Your task to perform on an android device: turn off wifi Image 0: 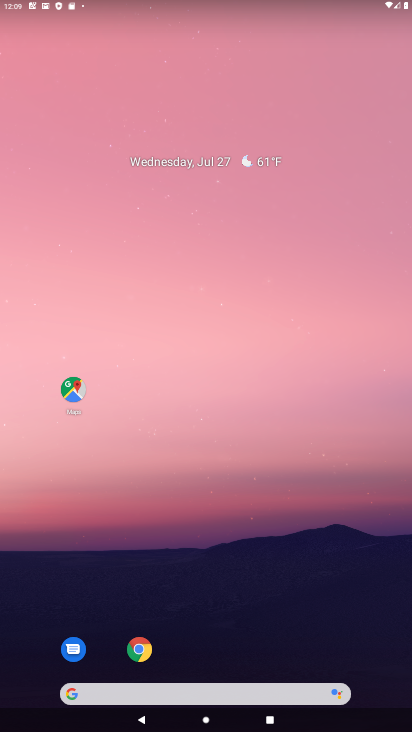
Step 0: drag from (246, 684) to (201, 298)
Your task to perform on an android device: turn off wifi Image 1: 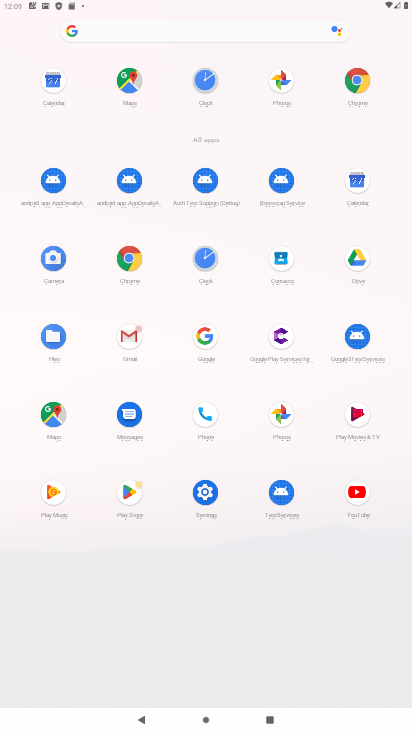
Step 1: click (205, 489)
Your task to perform on an android device: turn off wifi Image 2: 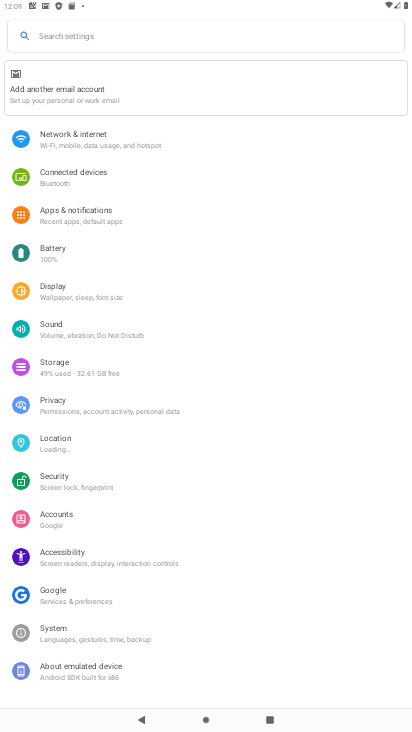
Step 2: click (78, 133)
Your task to perform on an android device: turn off wifi Image 3: 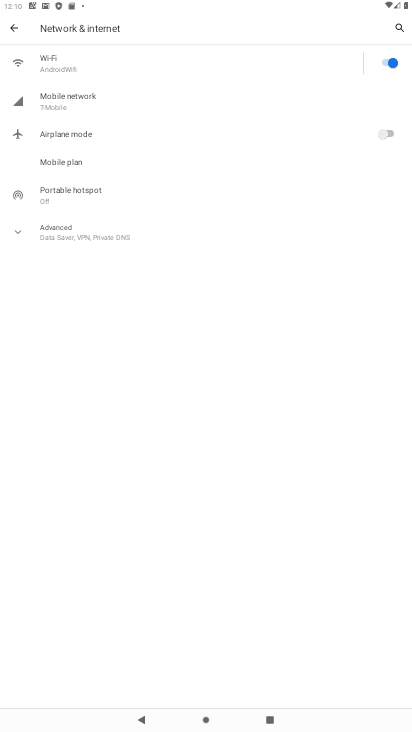
Step 3: click (382, 59)
Your task to perform on an android device: turn off wifi Image 4: 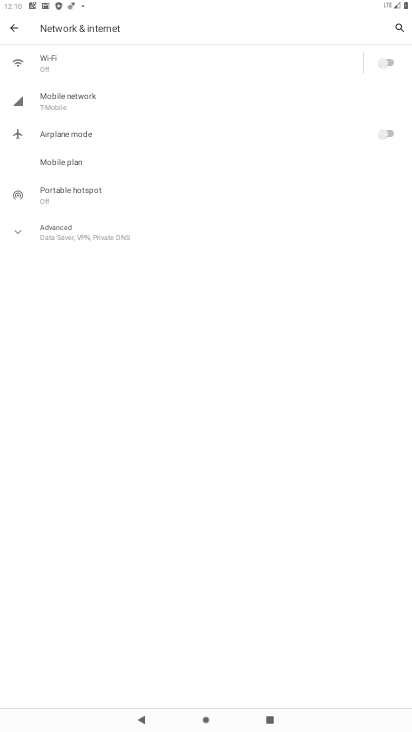
Step 4: task complete